Your task to perform on an android device: toggle wifi Image 0: 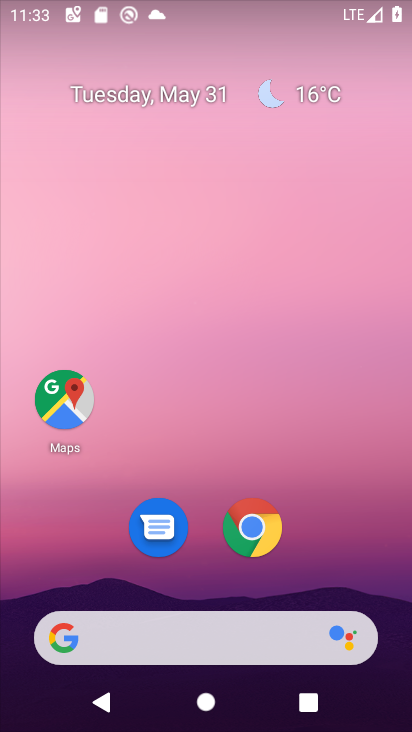
Step 0: drag from (380, 594) to (389, 13)
Your task to perform on an android device: toggle wifi Image 1: 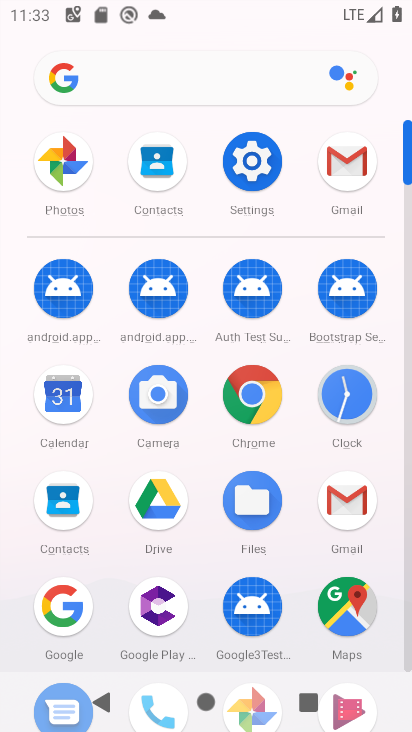
Step 1: click (249, 169)
Your task to perform on an android device: toggle wifi Image 2: 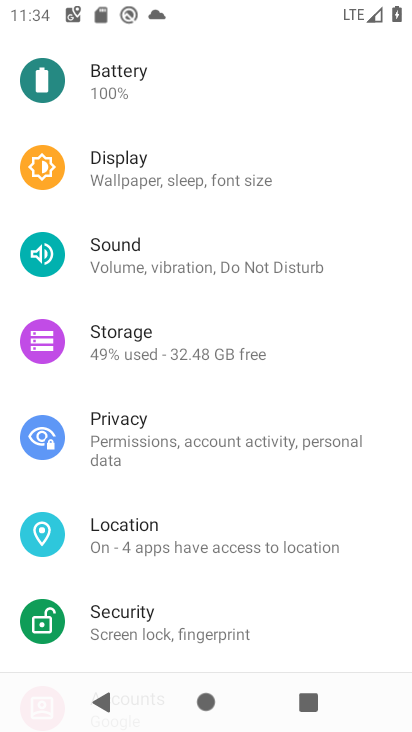
Step 2: drag from (240, 107) to (234, 513)
Your task to perform on an android device: toggle wifi Image 3: 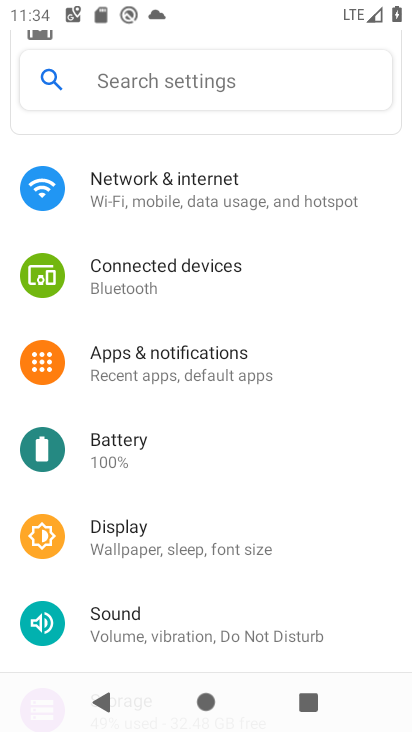
Step 3: click (179, 200)
Your task to perform on an android device: toggle wifi Image 4: 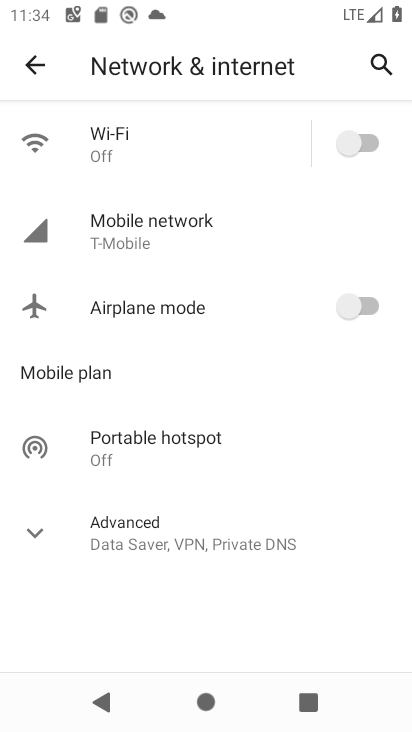
Step 4: click (365, 155)
Your task to perform on an android device: toggle wifi Image 5: 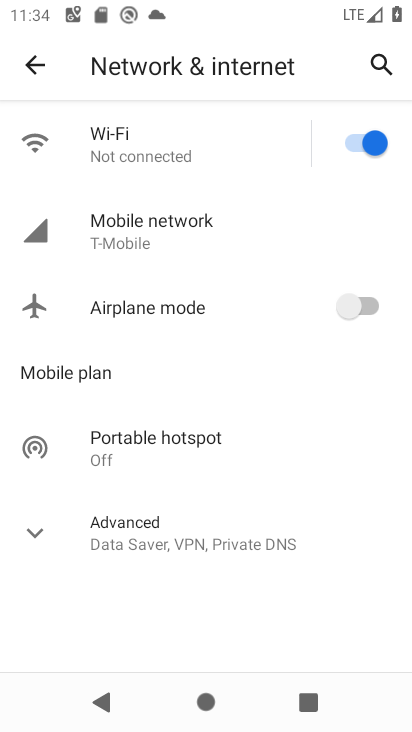
Step 5: task complete